Your task to perform on an android device: change alarm snooze length Image 0: 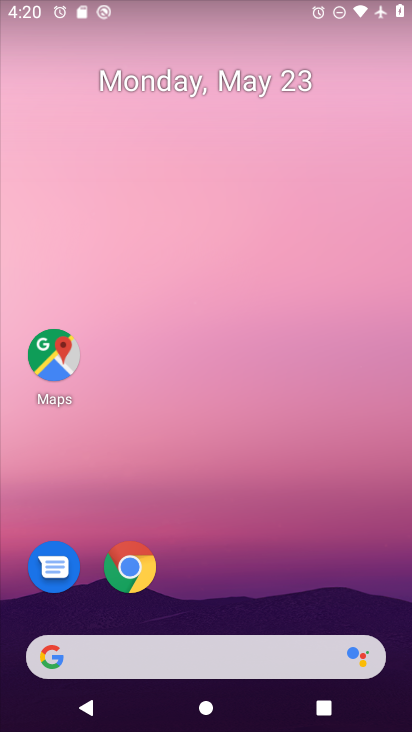
Step 0: drag from (398, 617) to (347, 33)
Your task to perform on an android device: change alarm snooze length Image 1: 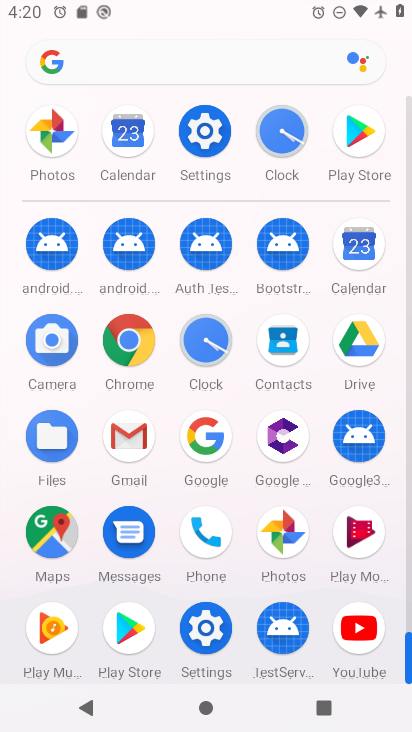
Step 1: click (200, 335)
Your task to perform on an android device: change alarm snooze length Image 2: 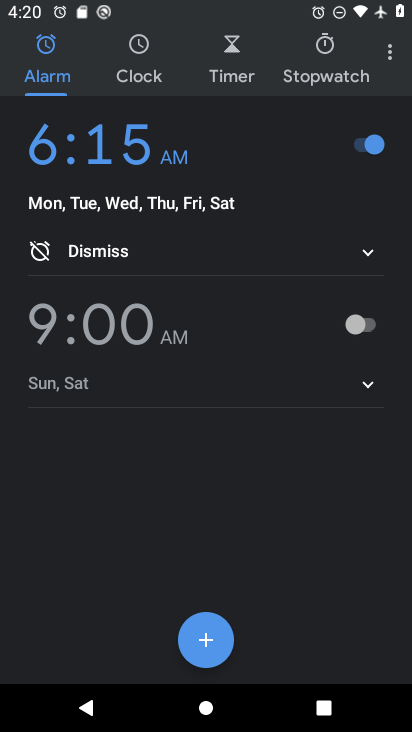
Step 2: click (384, 52)
Your task to perform on an android device: change alarm snooze length Image 3: 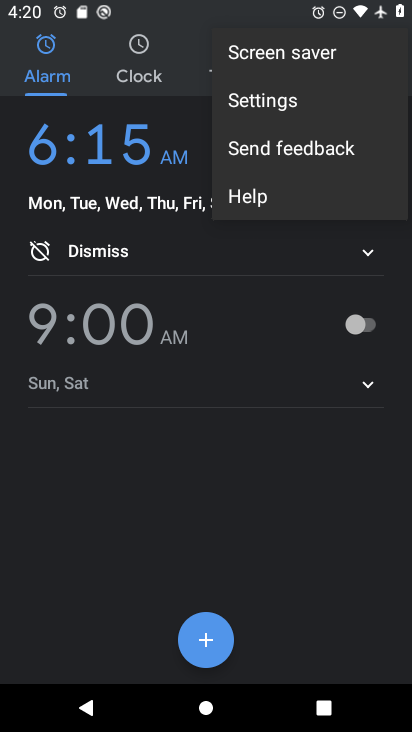
Step 3: click (263, 109)
Your task to perform on an android device: change alarm snooze length Image 4: 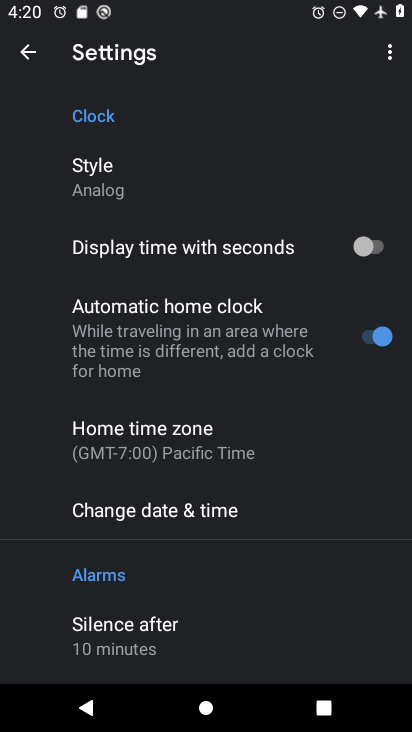
Step 4: drag from (213, 538) to (222, 145)
Your task to perform on an android device: change alarm snooze length Image 5: 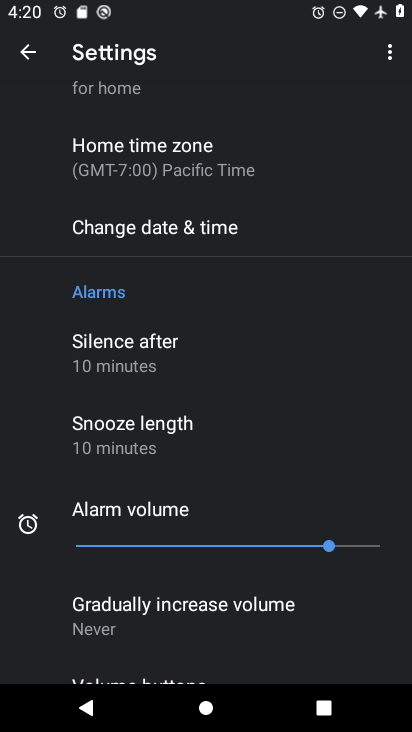
Step 5: click (107, 434)
Your task to perform on an android device: change alarm snooze length Image 6: 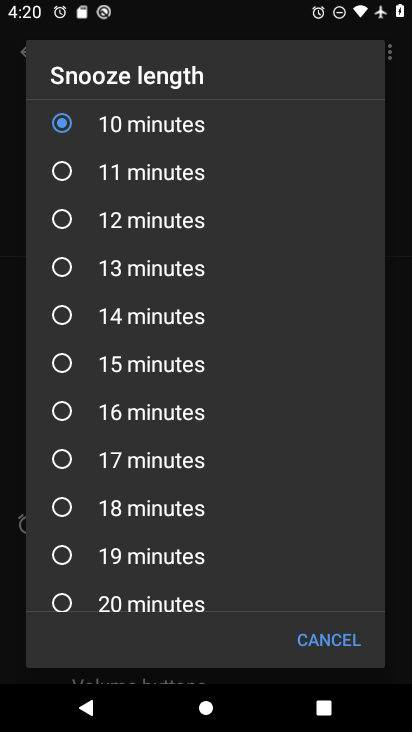
Step 6: click (58, 268)
Your task to perform on an android device: change alarm snooze length Image 7: 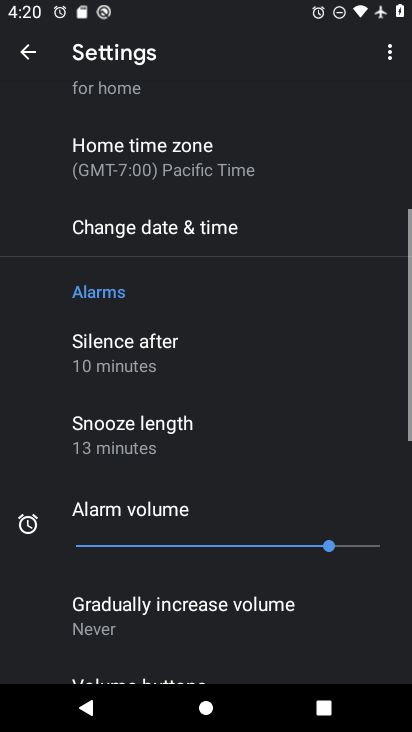
Step 7: task complete